Your task to perform on an android device: open sync settings in chrome Image 0: 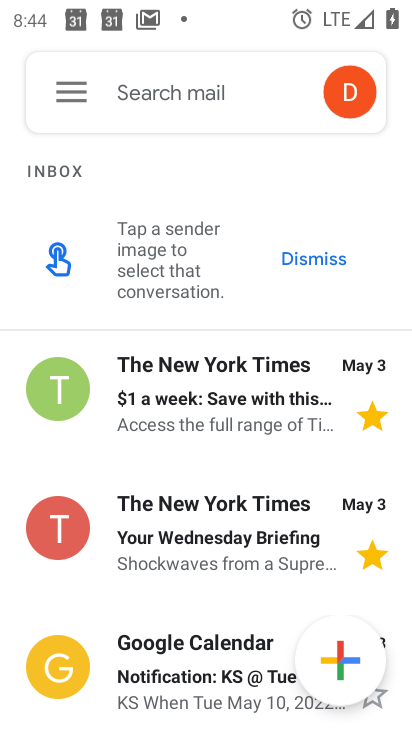
Step 0: click (85, 84)
Your task to perform on an android device: open sync settings in chrome Image 1: 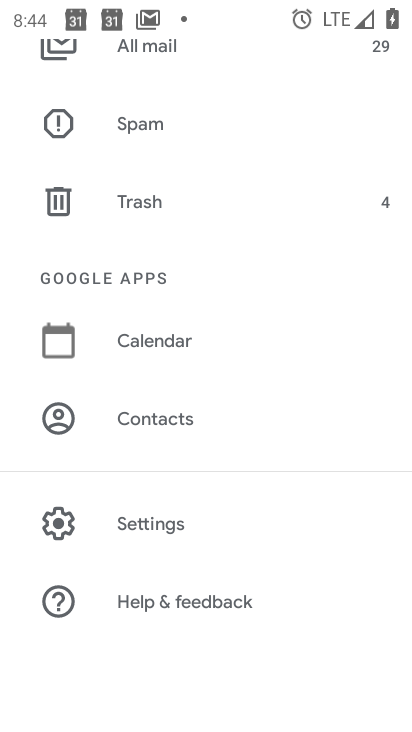
Step 1: press home button
Your task to perform on an android device: open sync settings in chrome Image 2: 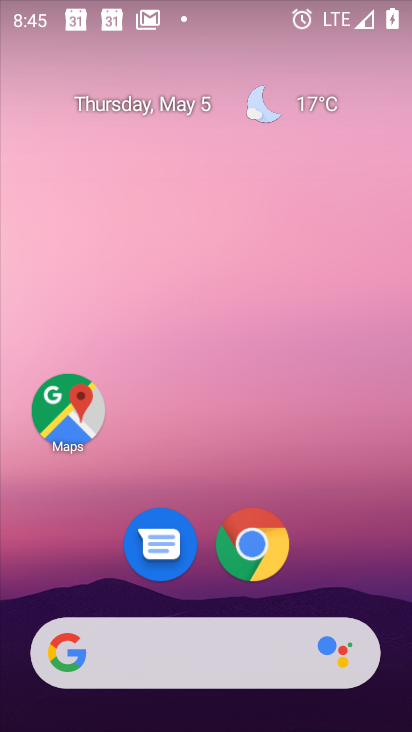
Step 2: click (268, 528)
Your task to perform on an android device: open sync settings in chrome Image 3: 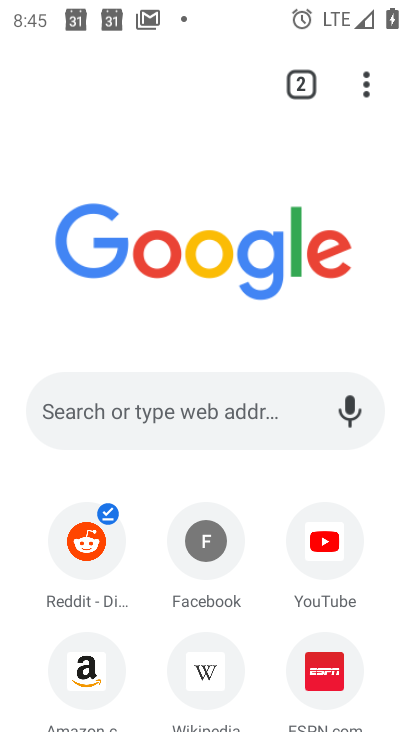
Step 3: click (362, 108)
Your task to perform on an android device: open sync settings in chrome Image 4: 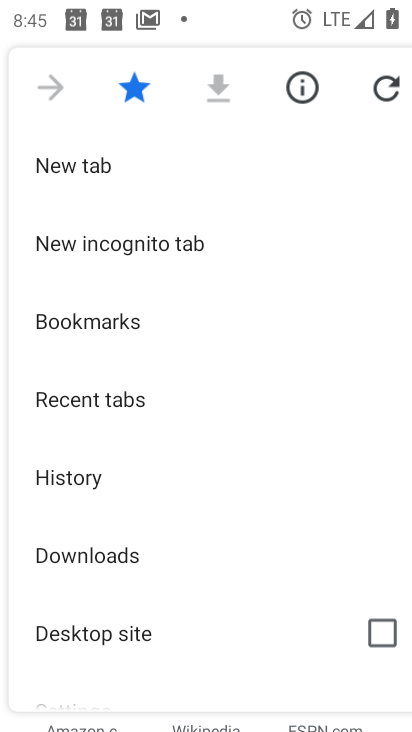
Step 4: drag from (214, 532) to (282, 26)
Your task to perform on an android device: open sync settings in chrome Image 5: 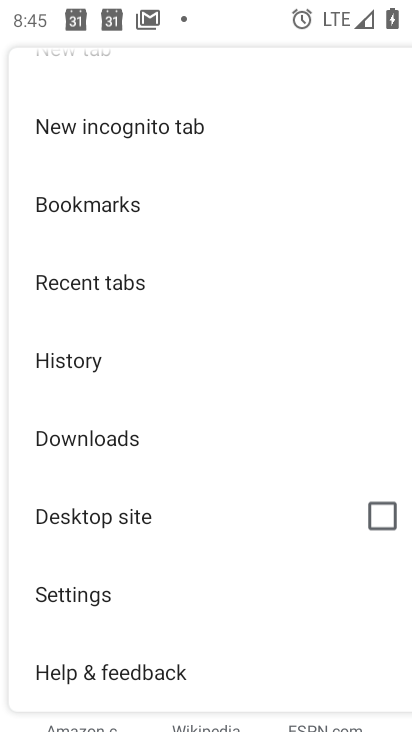
Step 5: click (166, 586)
Your task to perform on an android device: open sync settings in chrome Image 6: 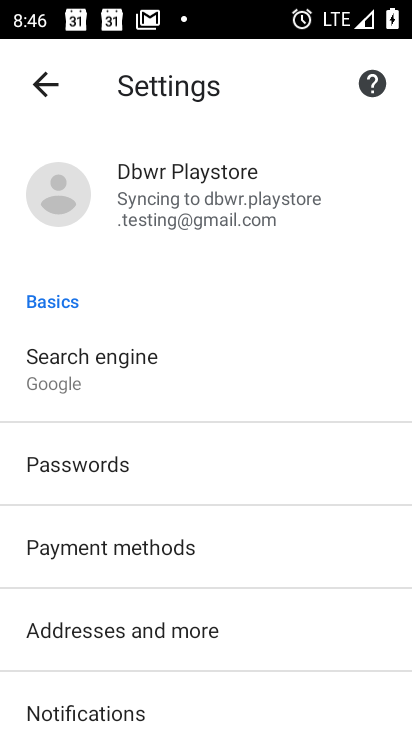
Step 6: click (235, 188)
Your task to perform on an android device: open sync settings in chrome Image 7: 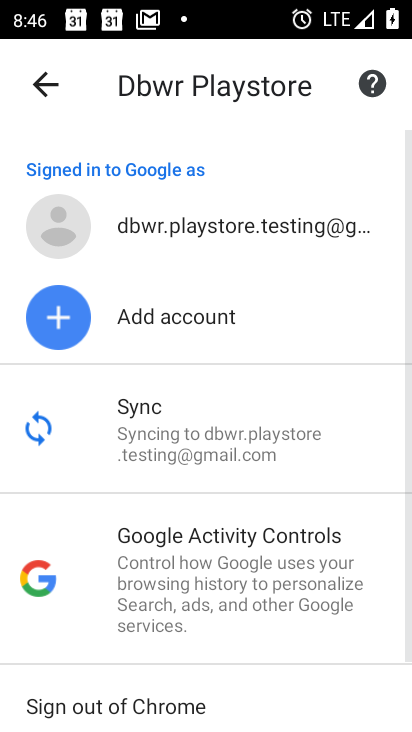
Step 7: click (185, 436)
Your task to perform on an android device: open sync settings in chrome Image 8: 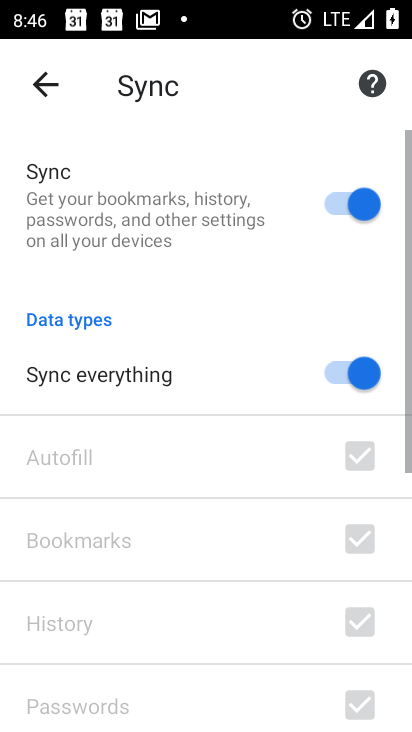
Step 8: task complete